Your task to perform on an android device: Open wifi settings Image 0: 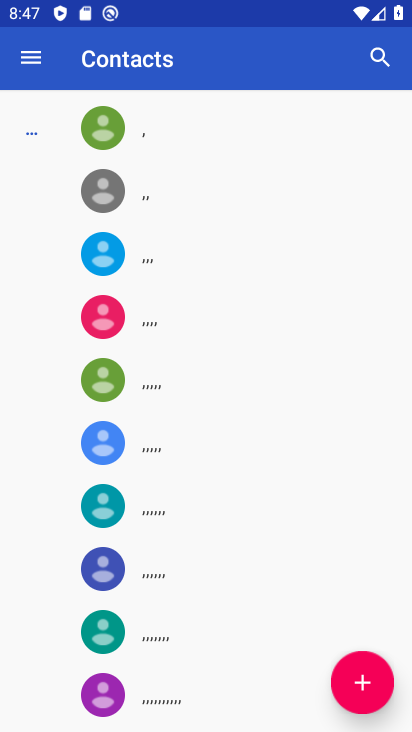
Step 0: press home button
Your task to perform on an android device: Open wifi settings Image 1: 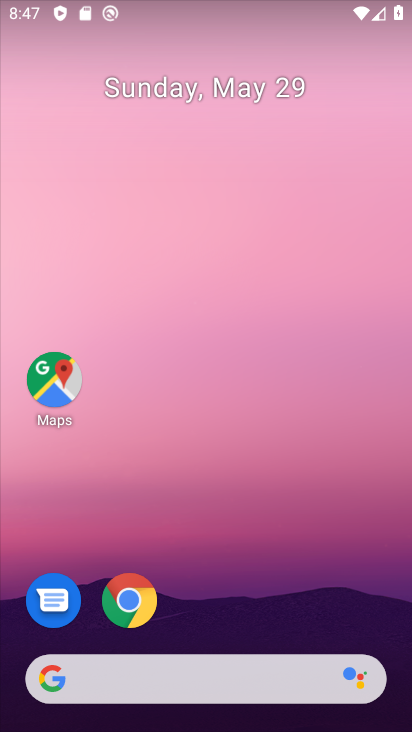
Step 1: drag from (216, 730) to (203, 222)
Your task to perform on an android device: Open wifi settings Image 2: 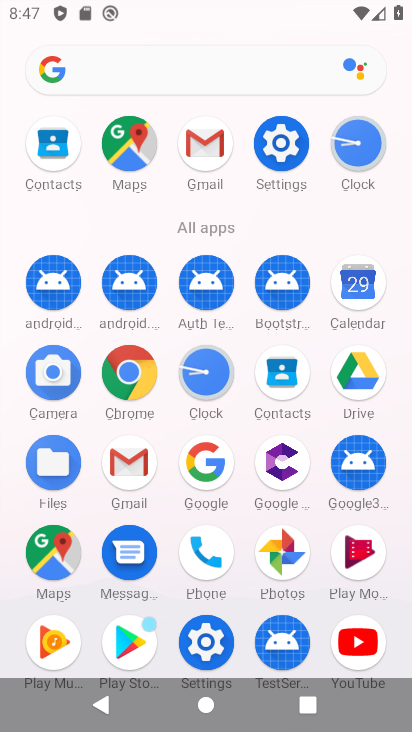
Step 2: click (280, 138)
Your task to perform on an android device: Open wifi settings Image 3: 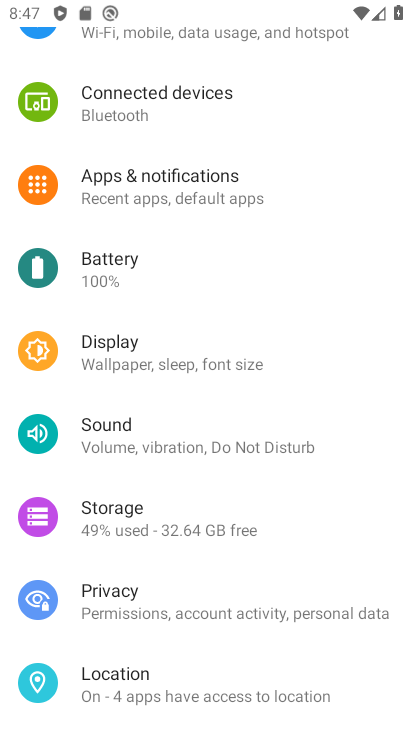
Step 3: drag from (270, 76) to (260, 541)
Your task to perform on an android device: Open wifi settings Image 4: 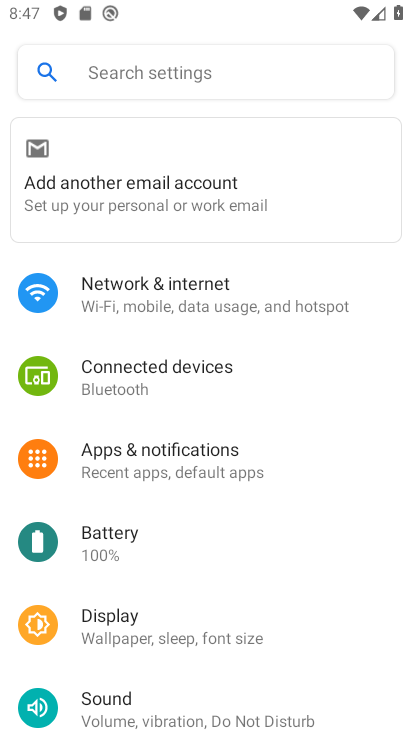
Step 4: click (117, 297)
Your task to perform on an android device: Open wifi settings Image 5: 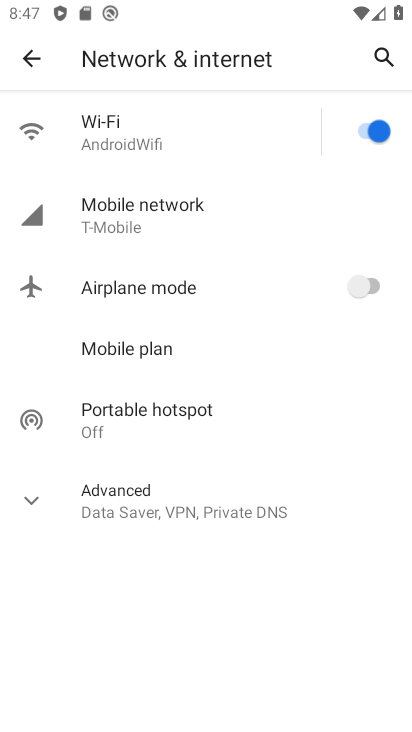
Step 5: click (117, 135)
Your task to perform on an android device: Open wifi settings Image 6: 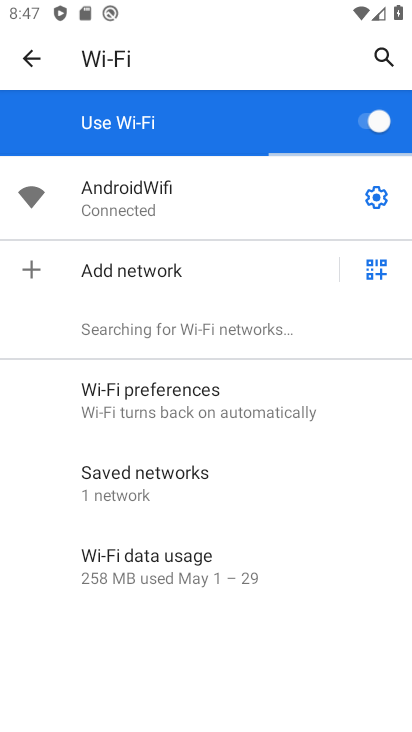
Step 6: task complete